Your task to perform on an android device: set the stopwatch Image 0: 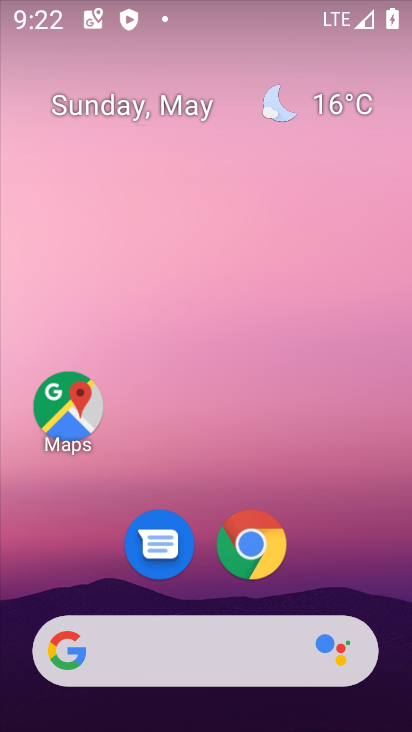
Step 0: drag from (312, 528) to (257, 74)
Your task to perform on an android device: set the stopwatch Image 1: 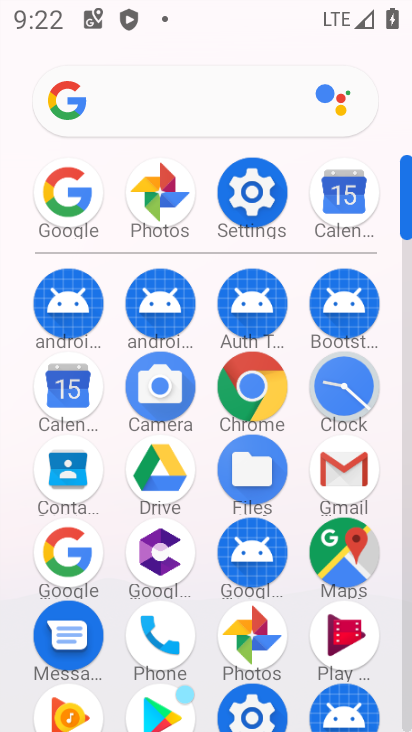
Step 1: click (337, 405)
Your task to perform on an android device: set the stopwatch Image 2: 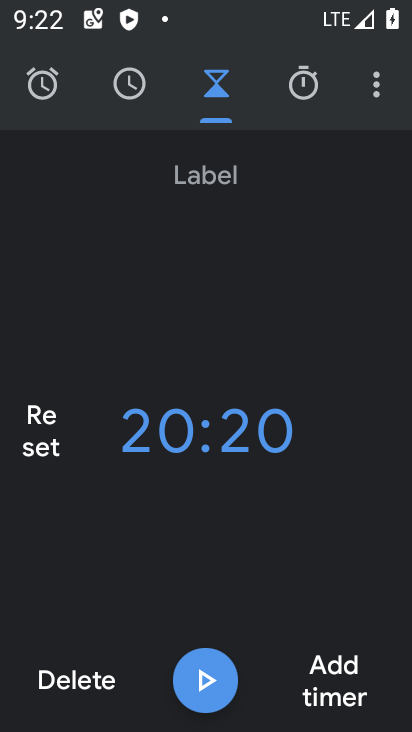
Step 2: click (313, 88)
Your task to perform on an android device: set the stopwatch Image 3: 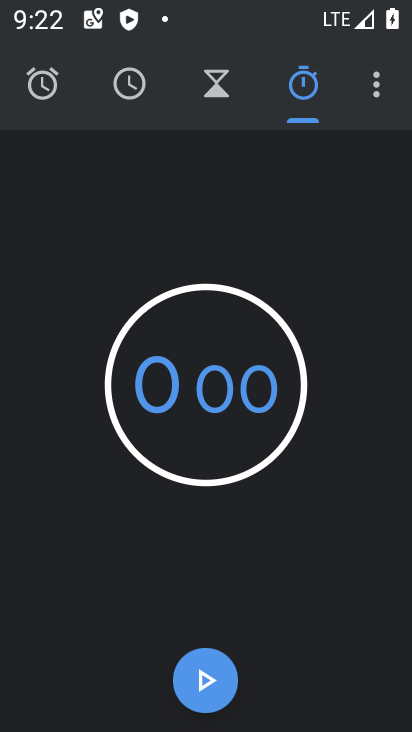
Step 3: click (194, 697)
Your task to perform on an android device: set the stopwatch Image 4: 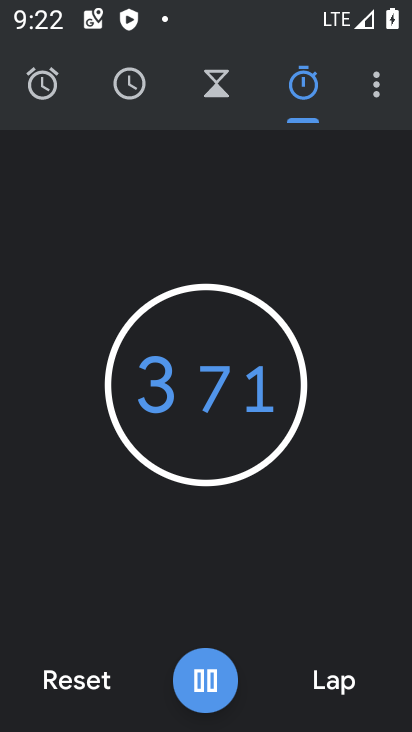
Step 4: click (203, 686)
Your task to perform on an android device: set the stopwatch Image 5: 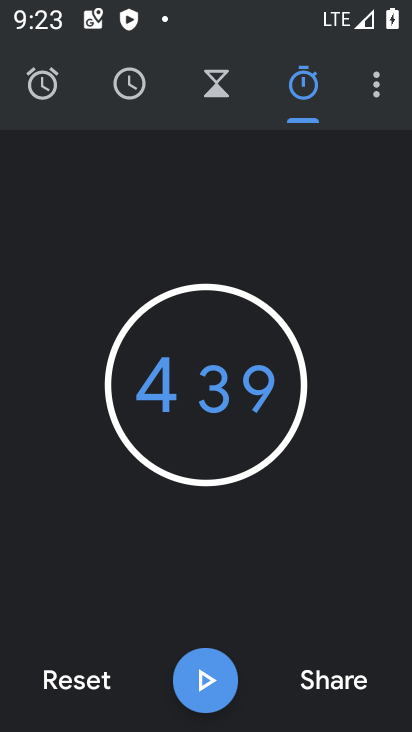
Step 5: task complete